Your task to perform on an android device: open app "Upside-Cash back on gas & food" (install if not already installed) and enter user name: "transatlantic@gmail.com" and password: "experiences" Image 0: 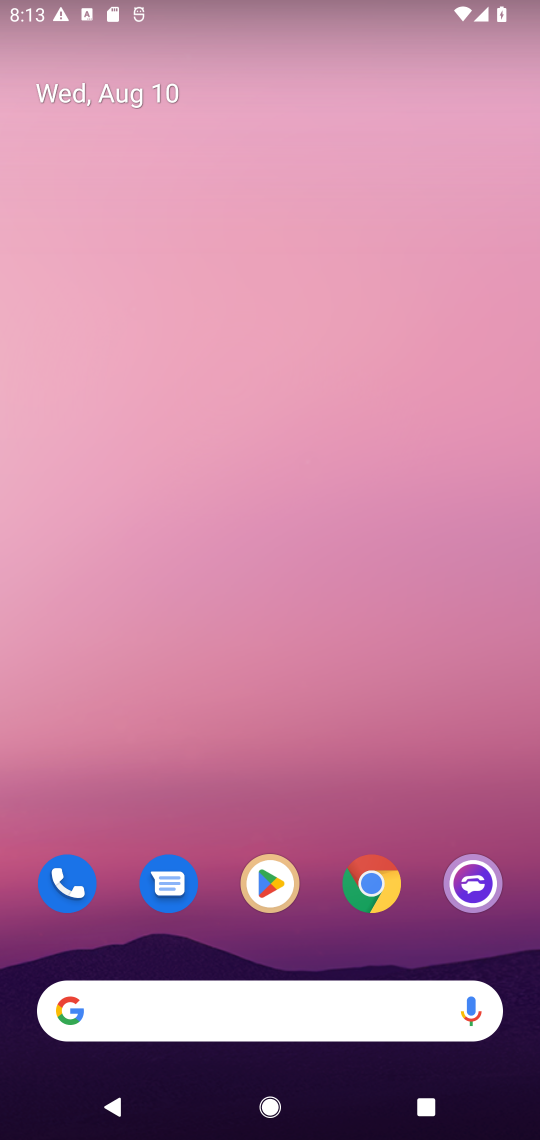
Step 0: drag from (306, 890) to (306, 7)
Your task to perform on an android device: open app "Upside-Cash back on gas & food" (install if not already installed) and enter user name: "transatlantic@gmail.com" and password: "experiences" Image 1: 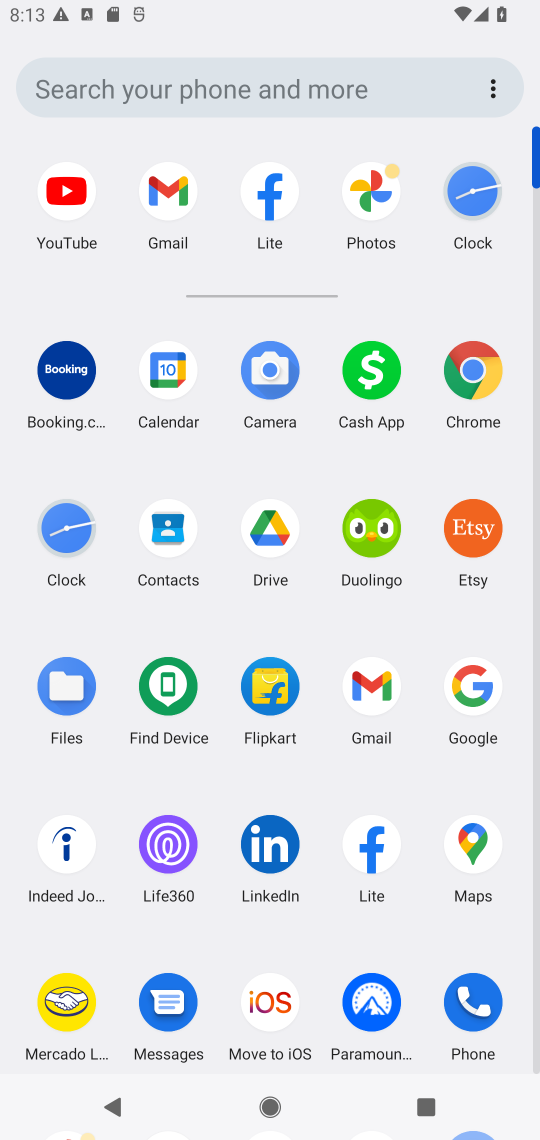
Step 1: drag from (304, 965) to (291, 489)
Your task to perform on an android device: open app "Upside-Cash back on gas & food" (install if not already installed) and enter user name: "transatlantic@gmail.com" and password: "experiences" Image 2: 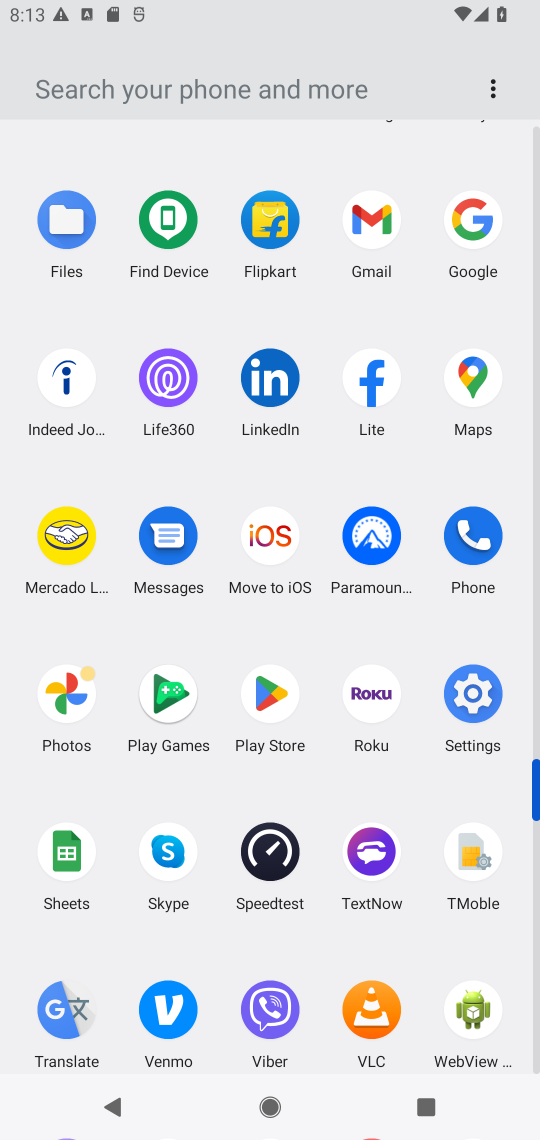
Step 2: click (264, 700)
Your task to perform on an android device: open app "Upside-Cash back on gas & food" (install if not already installed) and enter user name: "transatlantic@gmail.com" and password: "experiences" Image 3: 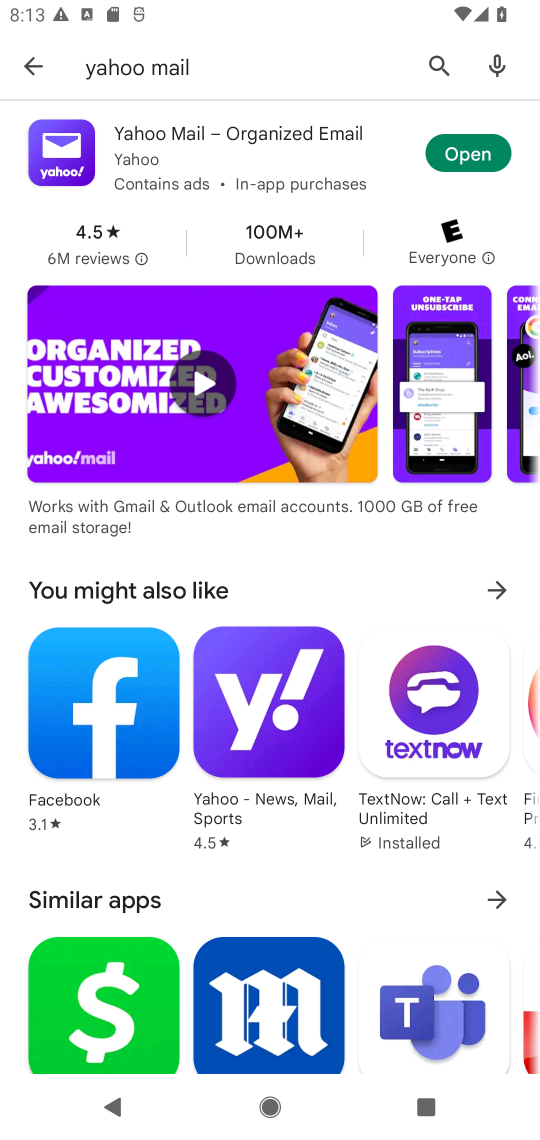
Step 3: click (432, 64)
Your task to perform on an android device: open app "Upside-Cash back on gas & food" (install if not already installed) and enter user name: "transatlantic@gmail.com" and password: "experiences" Image 4: 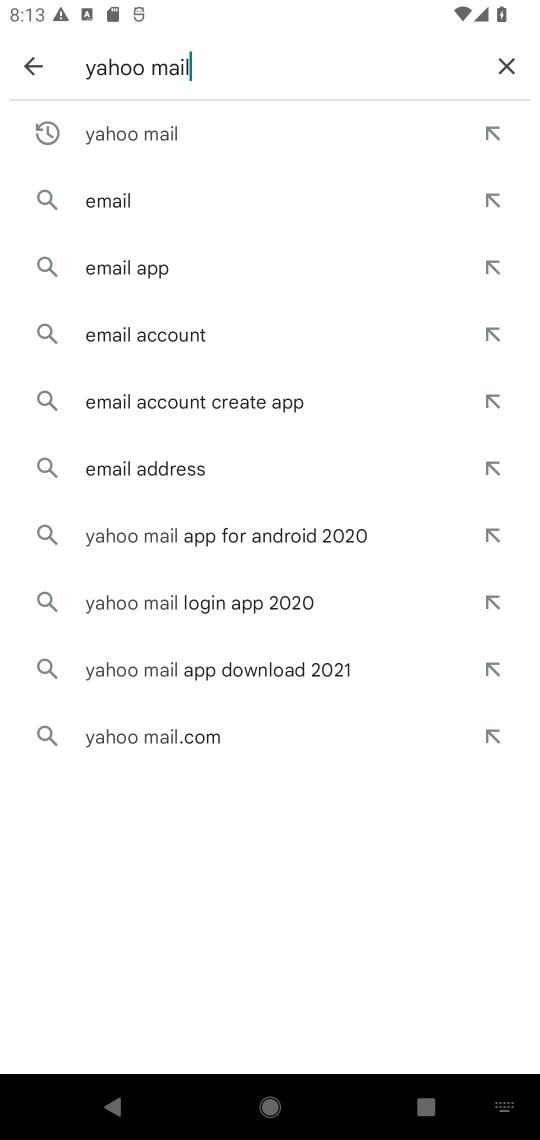
Step 4: click (507, 53)
Your task to perform on an android device: open app "Upside-Cash back on gas & food" (install if not already installed) and enter user name: "transatlantic@gmail.com" and password: "experiences" Image 5: 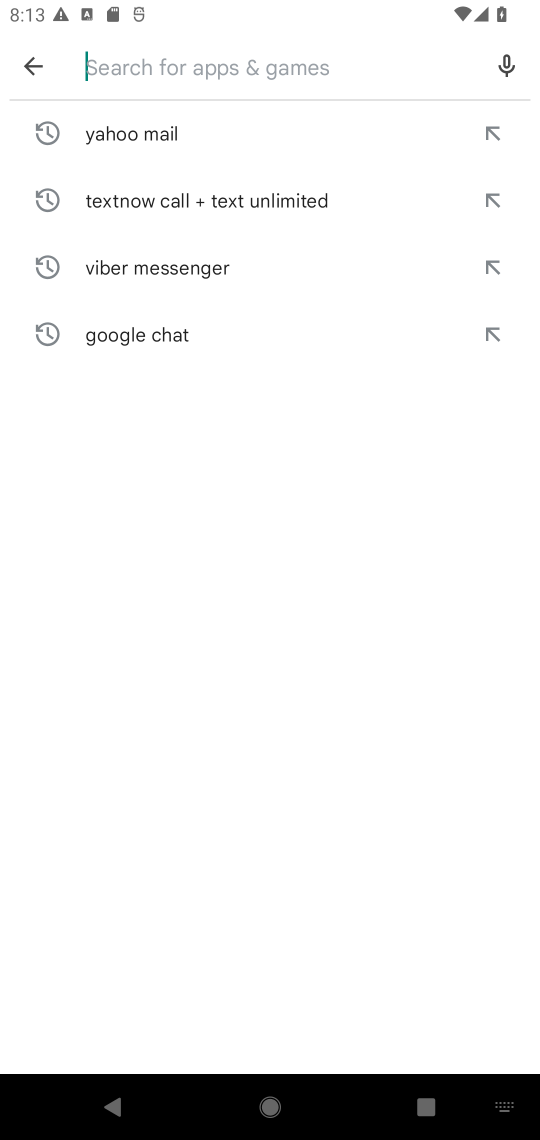
Step 5: type "Upside-Cash back on gas & food"
Your task to perform on an android device: open app "Upside-Cash back on gas & food" (install if not already installed) and enter user name: "transatlantic@gmail.com" and password: "experiences" Image 6: 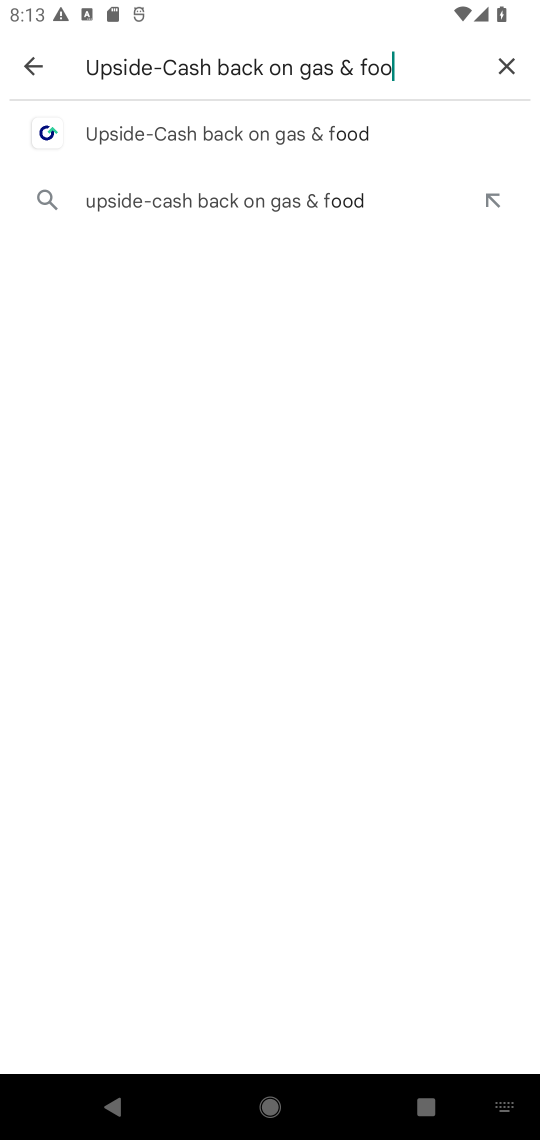
Step 6: type ""
Your task to perform on an android device: open app "Upside-Cash back on gas & food" (install if not already installed) and enter user name: "transatlantic@gmail.com" and password: "experiences" Image 7: 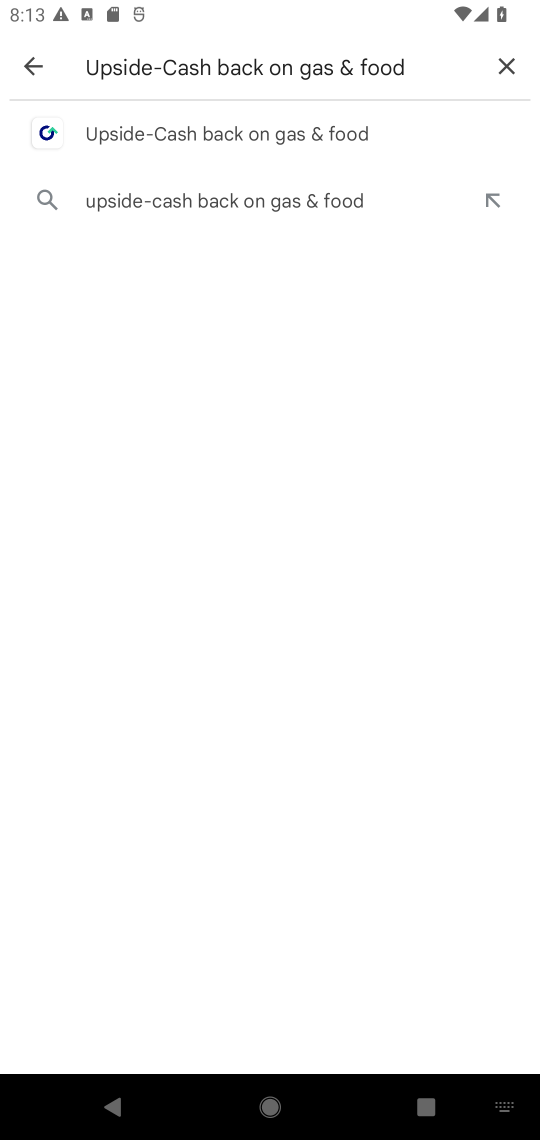
Step 7: click (261, 125)
Your task to perform on an android device: open app "Upside-Cash back on gas & food" (install if not already installed) and enter user name: "transatlantic@gmail.com" and password: "experiences" Image 8: 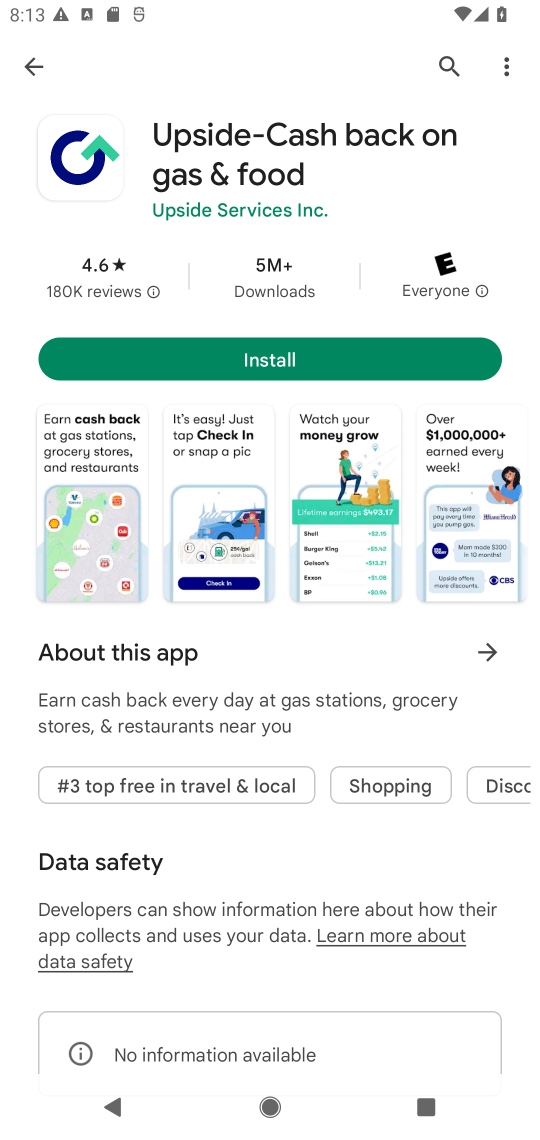
Step 8: click (302, 363)
Your task to perform on an android device: open app "Upside-Cash back on gas & food" (install if not already installed) and enter user name: "transatlantic@gmail.com" and password: "experiences" Image 9: 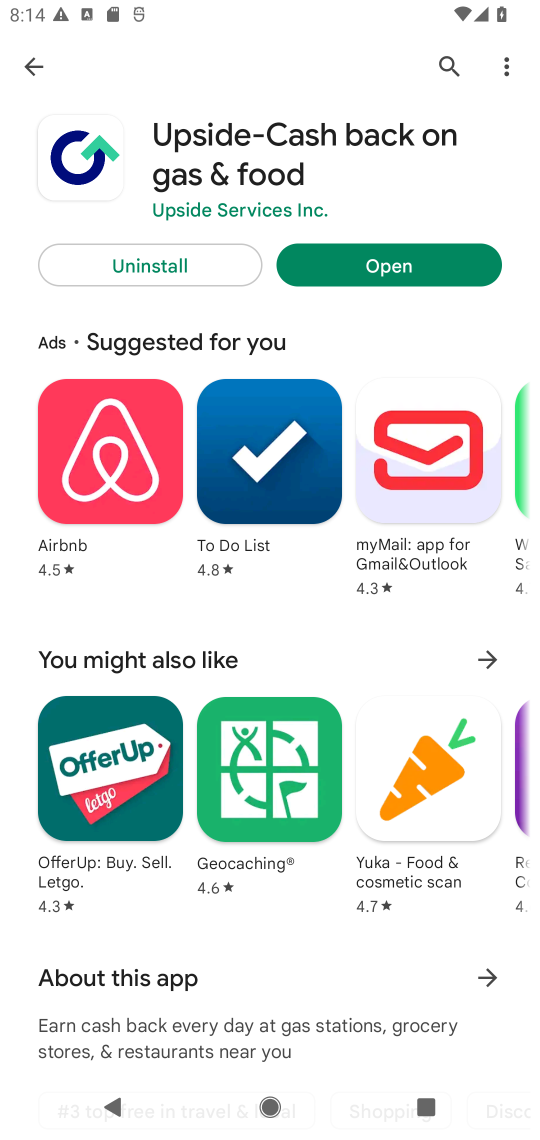
Step 9: click (407, 268)
Your task to perform on an android device: open app "Upside-Cash back on gas & food" (install if not already installed) and enter user name: "transatlantic@gmail.com" and password: "experiences" Image 10: 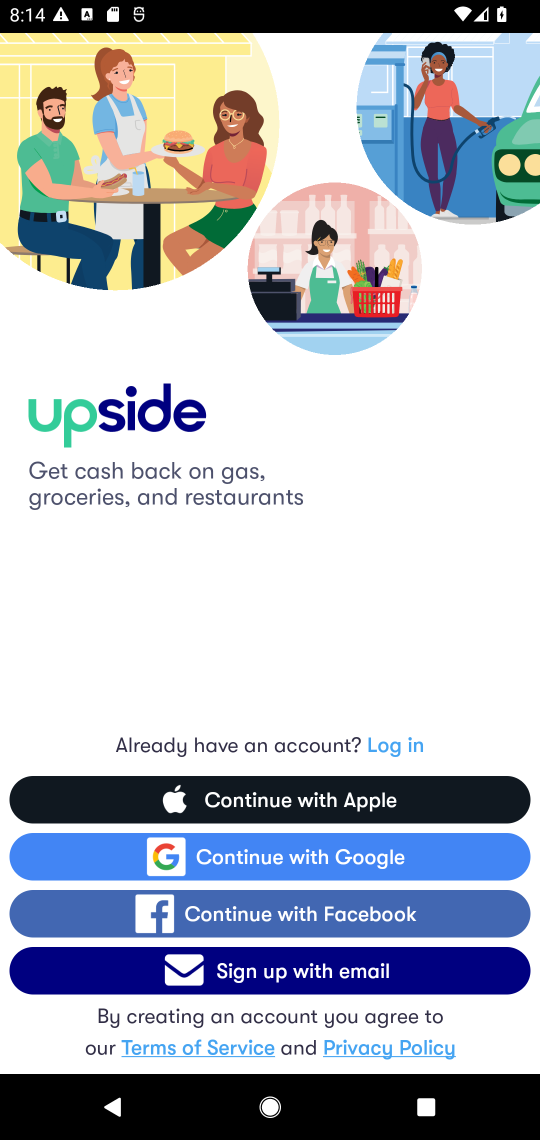
Step 10: click (358, 971)
Your task to perform on an android device: open app "Upside-Cash back on gas & food" (install if not already installed) and enter user name: "transatlantic@gmail.com" and password: "experiences" Image 11: 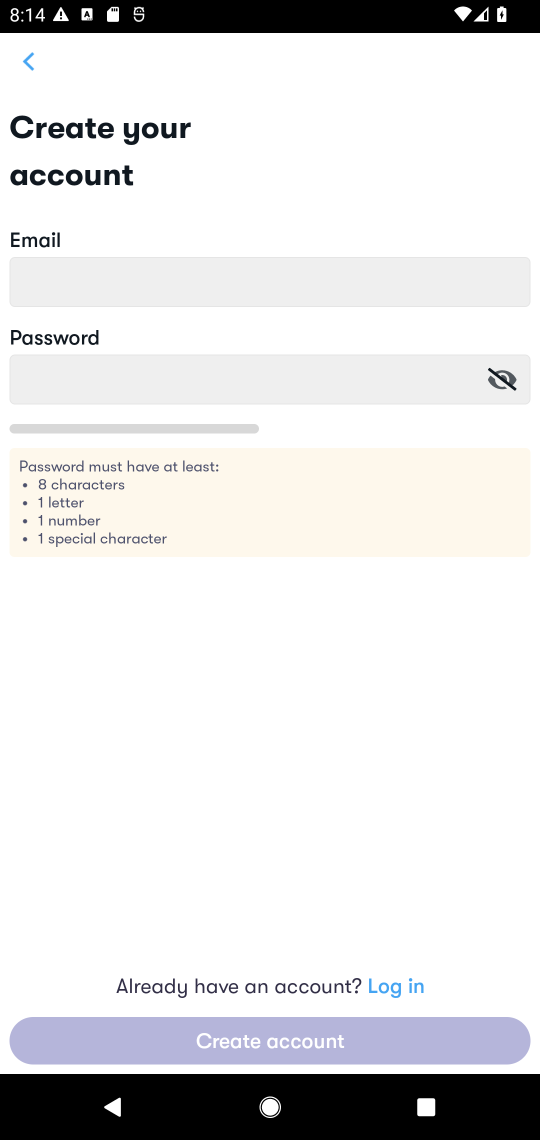
Step 11: click (187, 280)
Your task to perform on an android device: open app "Upside-Cash back on gas & food" (install if not already installed) and enter user name: "transatlantic@gmail.com" and password: "experiences" Image 12: 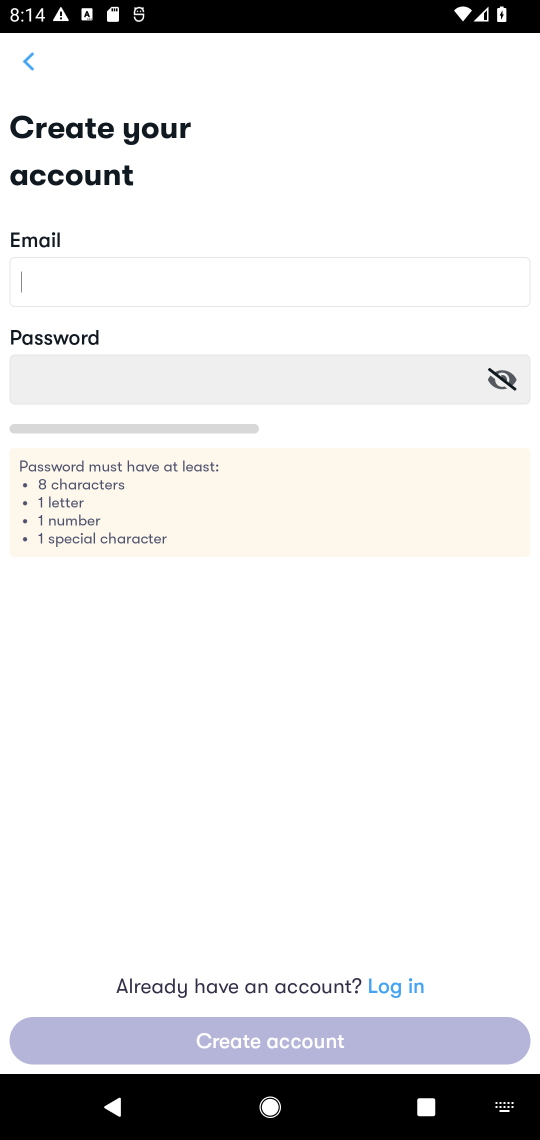
Step 12: type "transatlantic@gmail.com"
Your task to perform on an android device: open app "Upside-Cash back on gas & food" (install if not already installed) and enter user name: "transatlantic@gmail.com" and password: "experiences" Image 13: 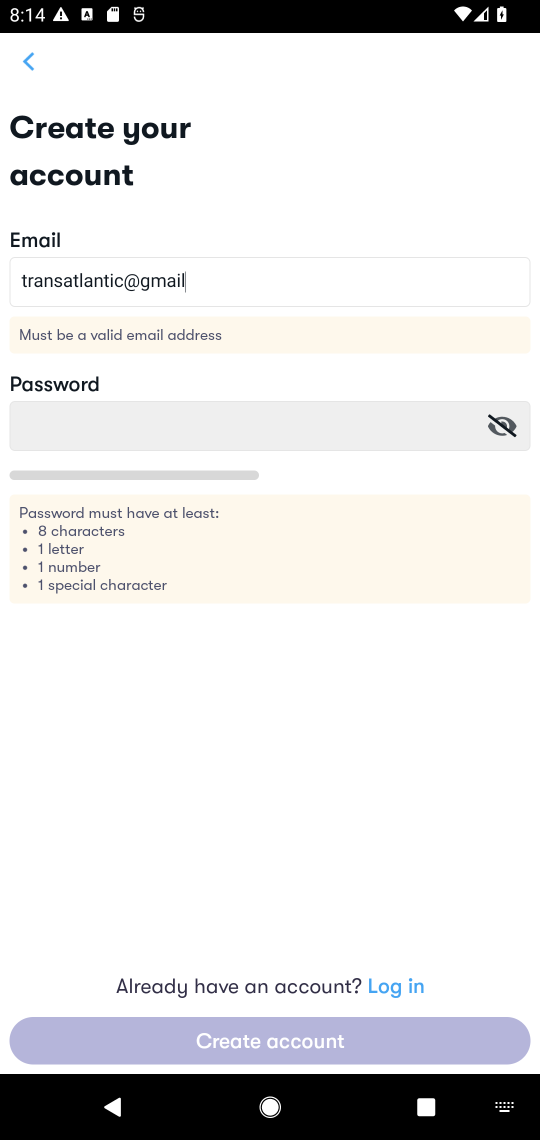
Step 13: type ""
Your task to perform on an android device: open app "Upside-Cash back on gas & food" (install if not already installed) and enter user name: "transatlantic@gmail.com" and password: "experiences" Image 14: 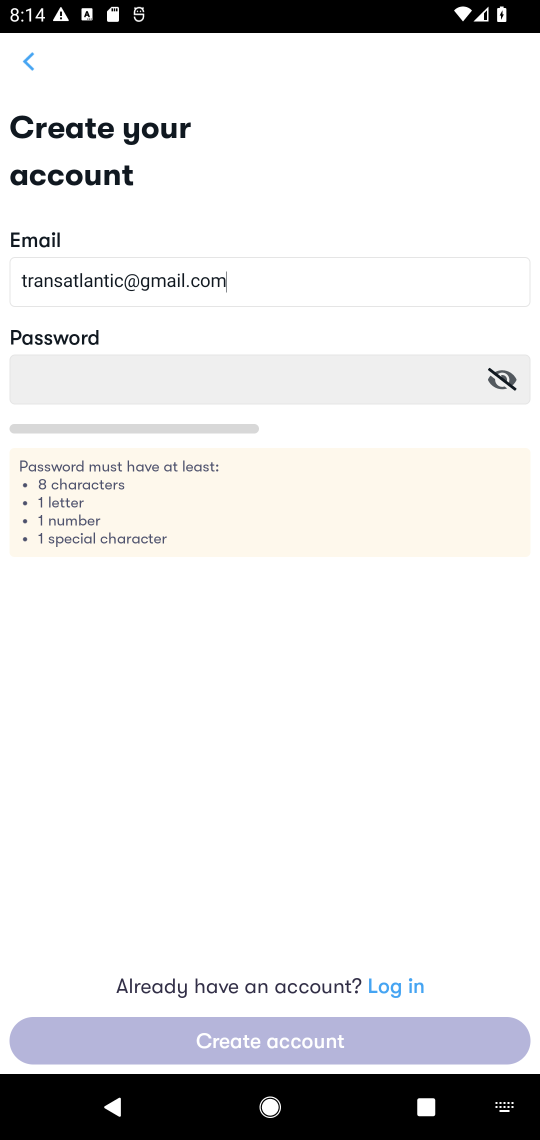
Step 14: click (292, 391)
Your task to perform on an android device: open app "Upside-Cash back on gas & food" (install if not already installed) and enter user name: "transatlantic@gmail.com" and password: "experiences" Image 15: 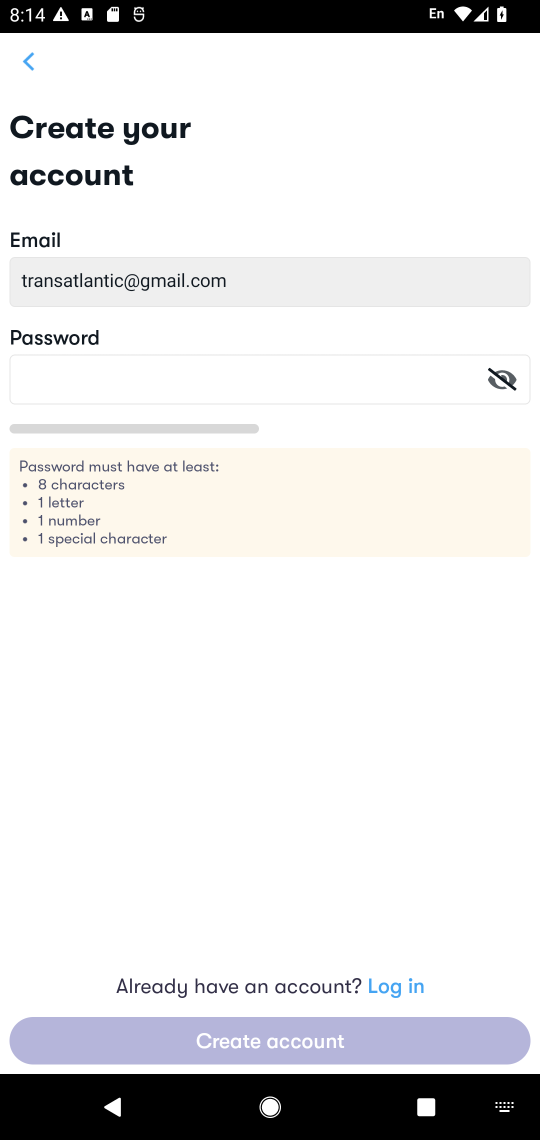
Step 15: type "experiences"
Your task to perform on an android device: open app "Upside-Cash back on gas & food" (install if not already installed) and enter user name: "transatlantic@gmail.com" and password: "experiences" Image 16: 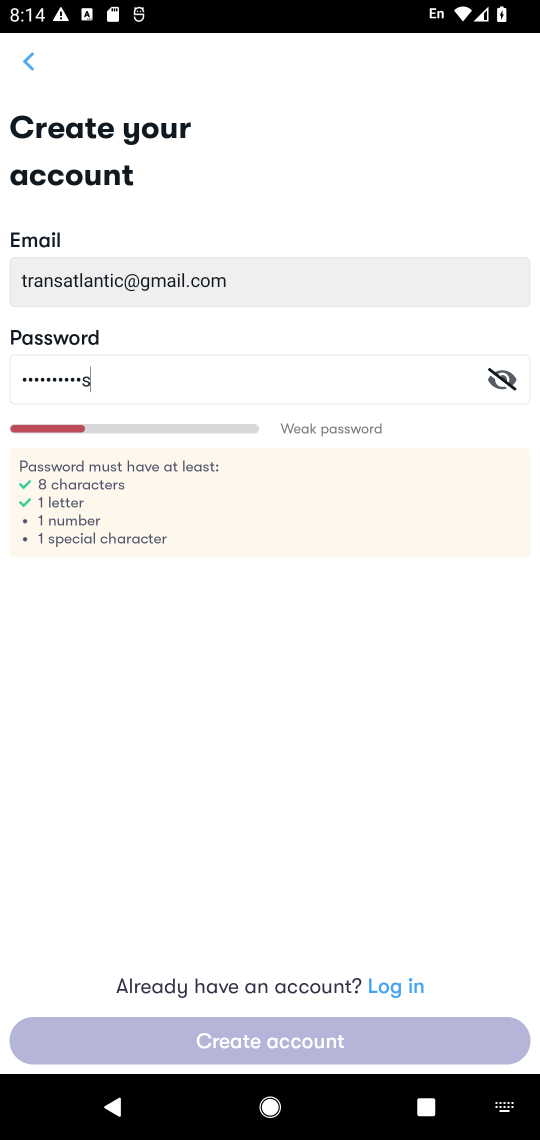
Step 16: type ""
Your task to perform on an android device: open app "Upside-Cash back on gas & food" (install if not already installed) and enter user name: "transatlantic@gmail.com" and password: "experiences" Image 17: 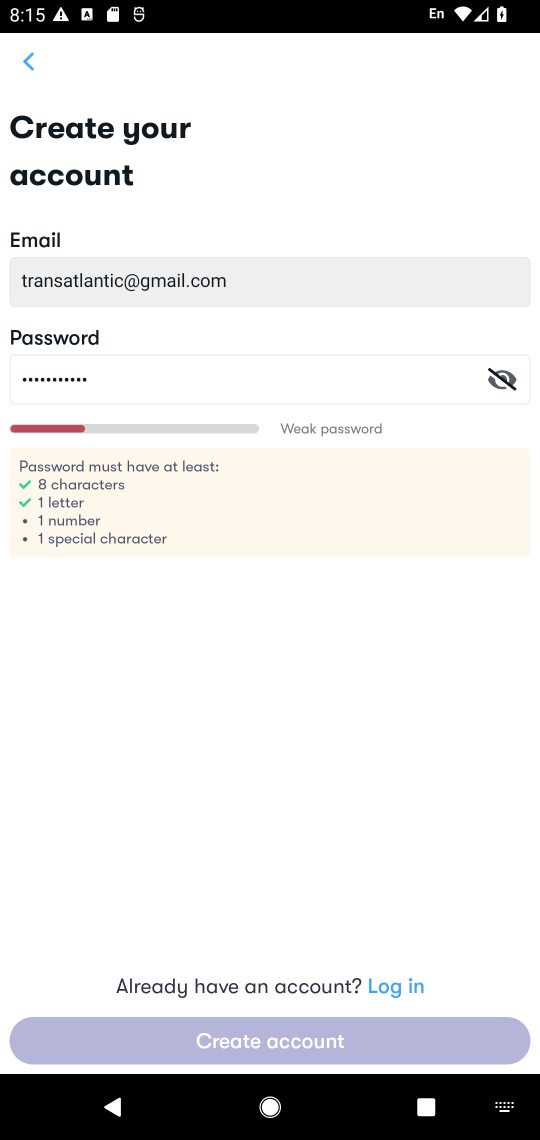
Step 17: task complete